Your task to perform on an android device: turn off notifications settings in the gmail app Image 0: 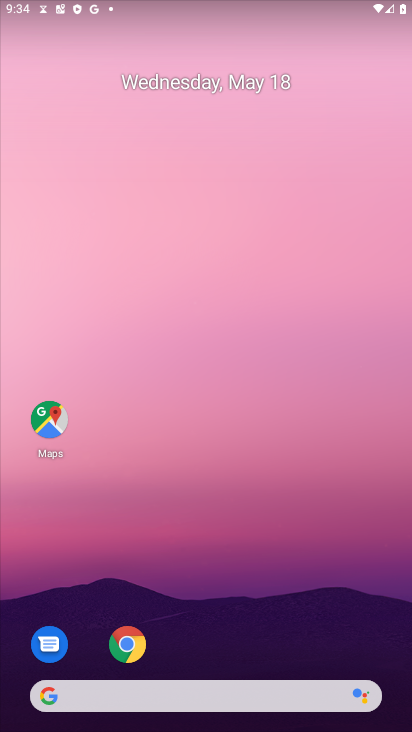
Step 0: drag from (253, 641) to (196, 68)
Your task to perform on an android device: turn off notifications settings in the gmail app Image 1: 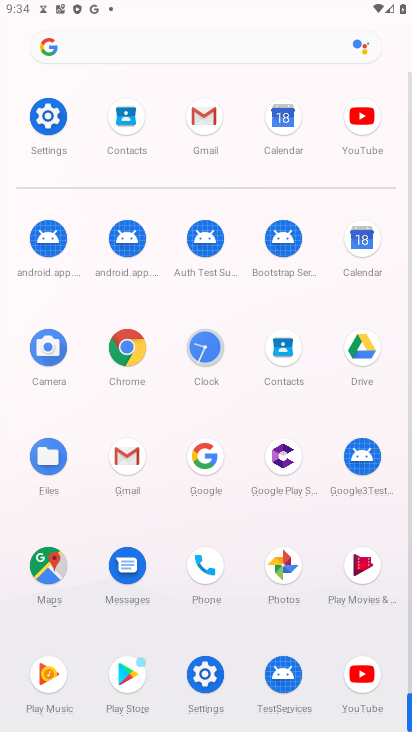
Step 1: click (206, 116)
Your task to perform on an android device: turn off notifications settings in the gmail app Image 2: 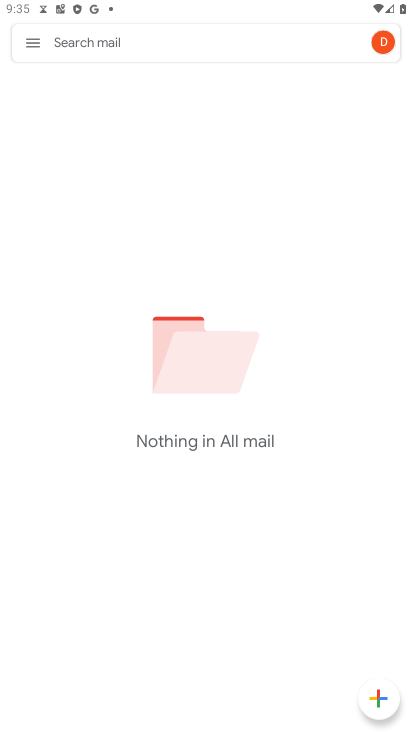
Step 2: click (31, 37)
Your task to perform on an android device: turn off notifications settings in the gmail app Image 3: 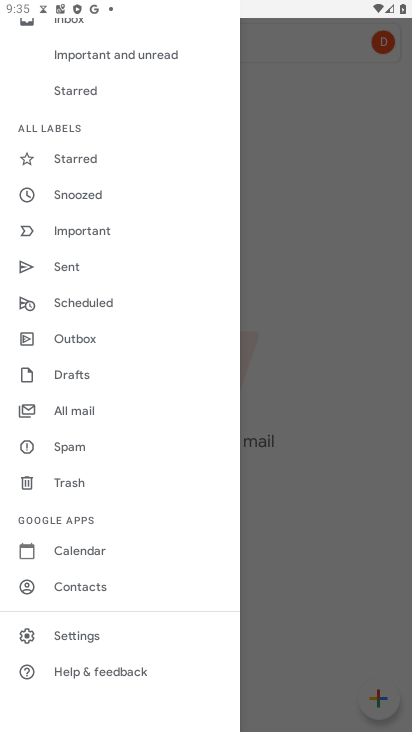
Step 3: click (65, 635)
Your task to perform on an android device: turn off notifications settings in the gmail app Image 4: 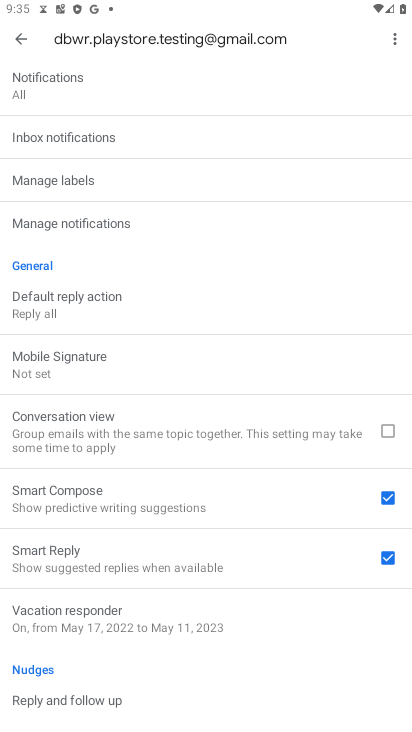
Step 4: click (81, 225)
Your task to perform on an android device: turn off notifications settings in the gmail app Image 5: 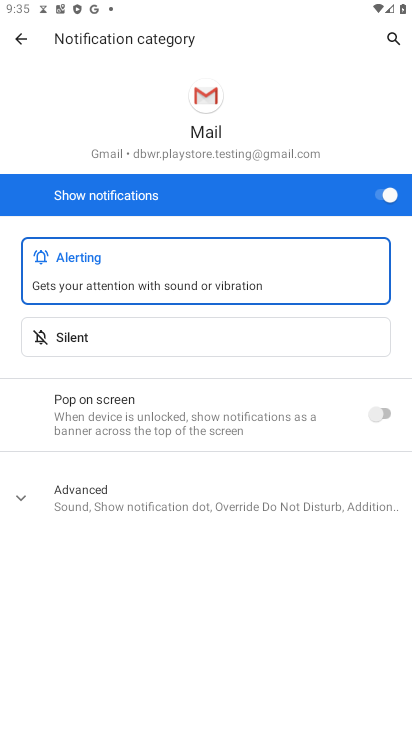
Step 5: click (386, 195)
Your task to perform on an android device: turn off notifications settings in the gmail app Image 6: 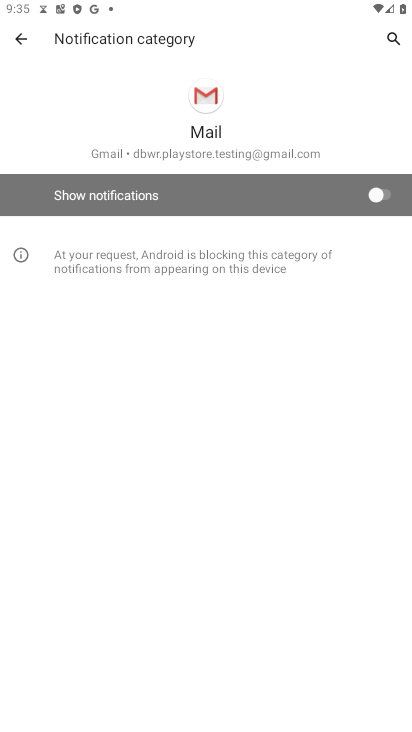
Step 6: task complete